Your task to perform on an android device: Open settings on Google Maps Image 0: 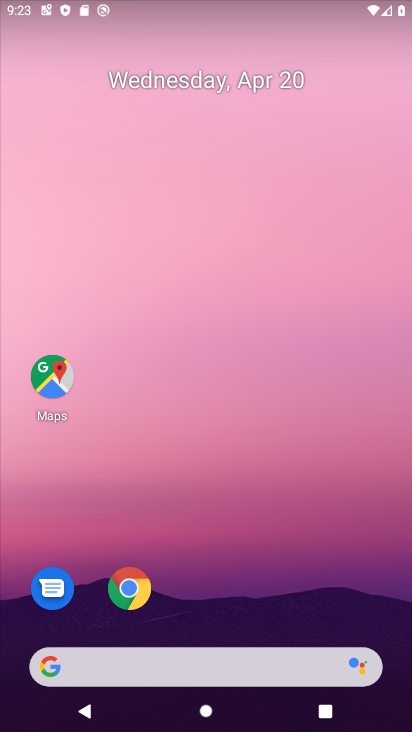
Step 0: click (48, 371)
Your task to perform on an android device: Open settings on Google Maps Image 1: 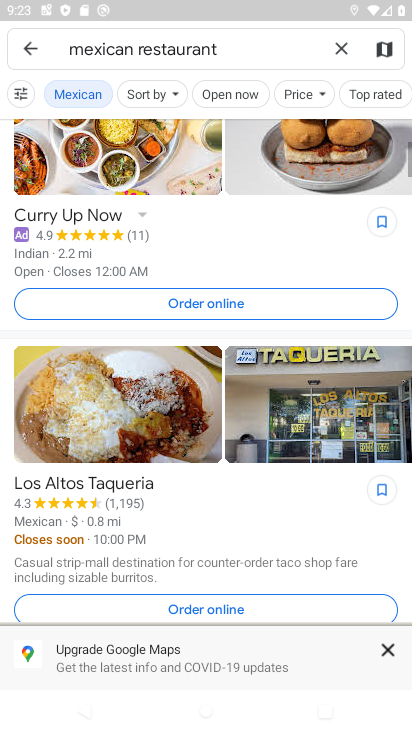
Step 1: click (18, 44)
Your task to perform on an android device: Open settings on Google Maps Image 2: 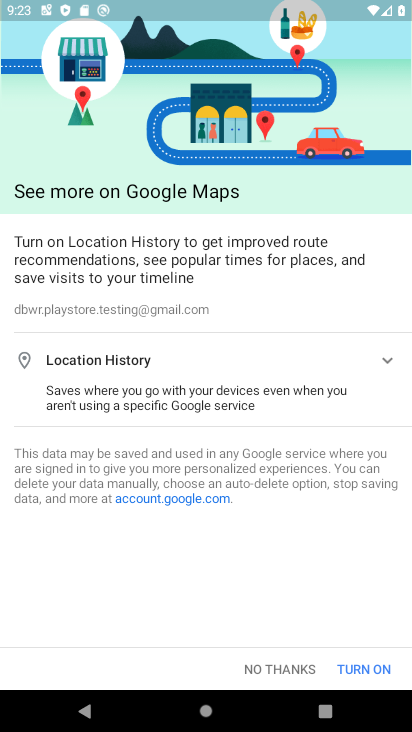
Step 2: press back button
Your task to perform on an android device: Open settings on Google Maps Image 3: 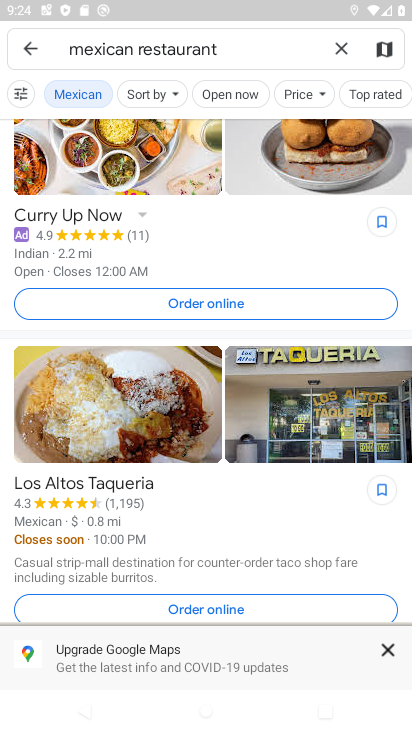
Step 3: press back button
Your task to perform on an android device: Open settings on Google Maps Image 4: 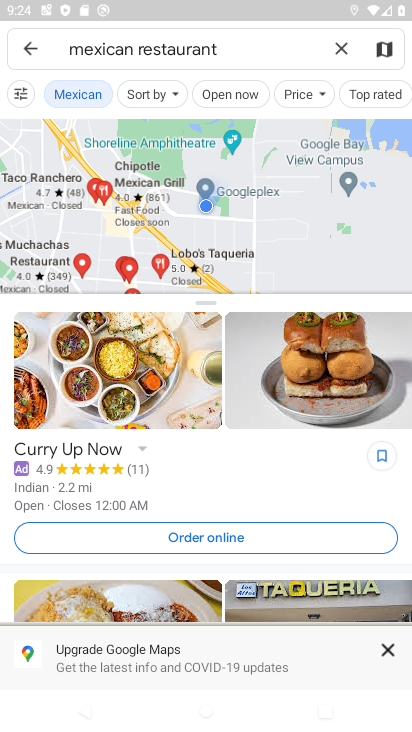
Step 4: press back button
Your task to perform on an android device: Open settings on Google Maps Image 5: 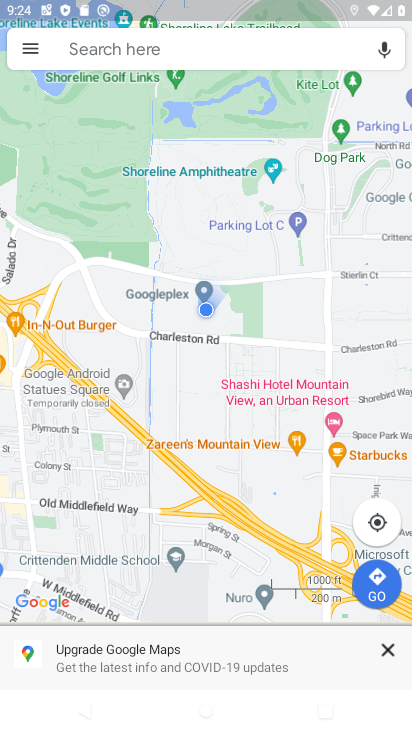
Step 5: click (27, 47)
Your task to perform on an android device: Open settings on Google Maps Image 6: 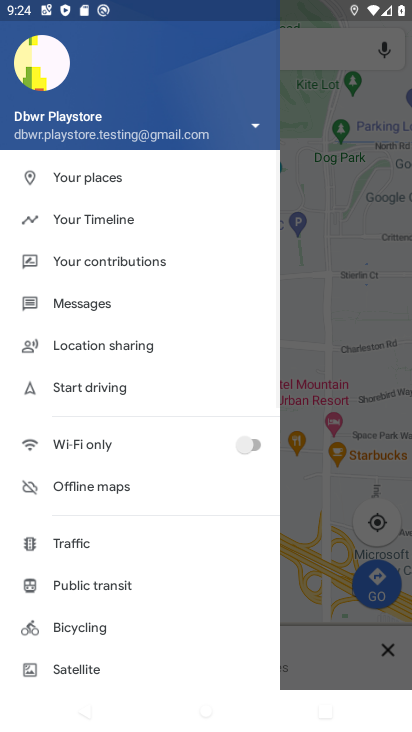
Step 6: drag from (152, 622) to (114, 274)
Your task to perform on an android device: Open settings on Google Maps Image 7: 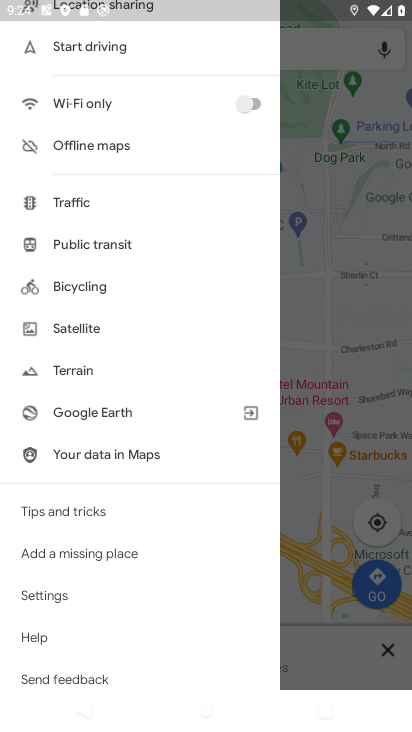
Step 7: click (51, 593)
Your task to perform on an android device: Open settings on Google Maps Image 8: 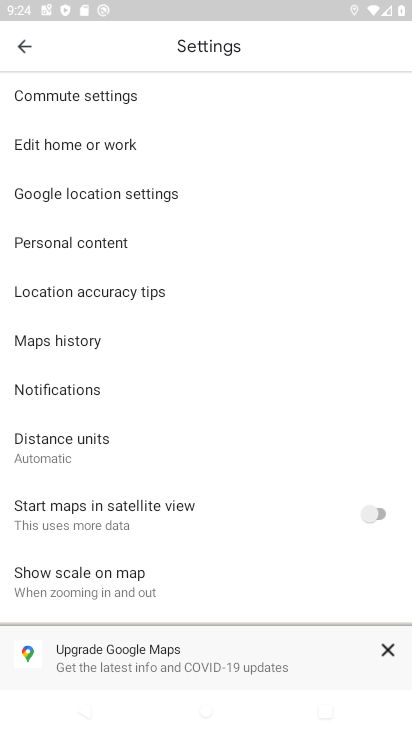
Step 8: task complete